Your task to perform on an android device: Go to network settings Image 0: 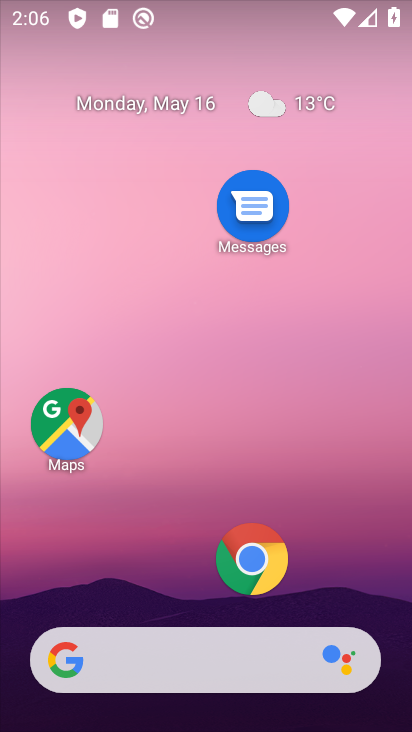
Step 0: drag from (177, 572) to (200, 188)
Your task to perform on an android device: Go to network settings Image 1: 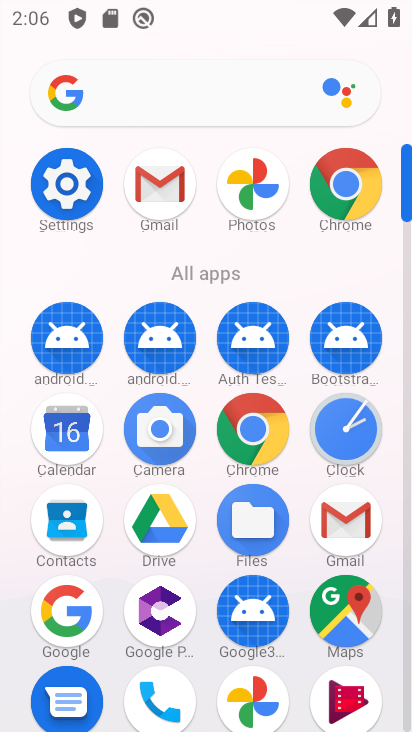
Step 1: click (68, 184)
Your task to perform on an android device: Go to network settings Image 2: 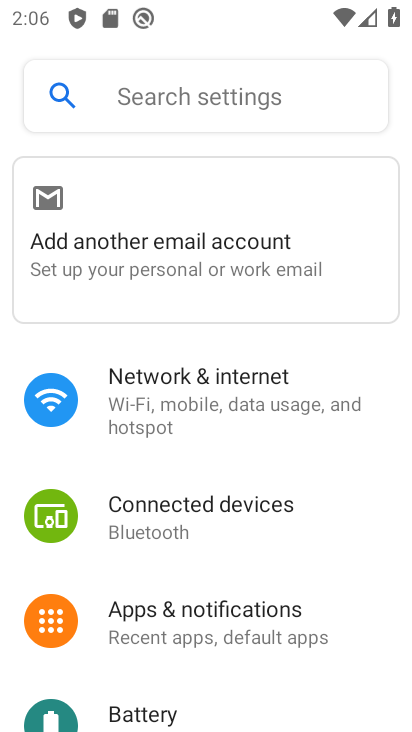
Step 2: click (221, 397)
Your task to perform on an android device: Go to network settings Image 3: 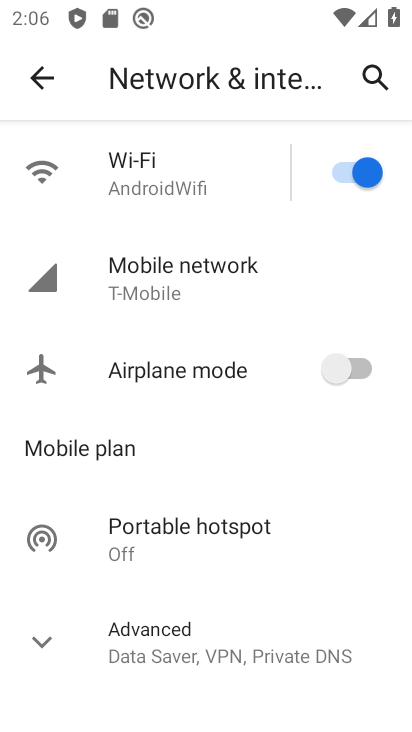
Step 3: click (222, 275)
Your task to perform on an android device: Go to network settings Image 4: 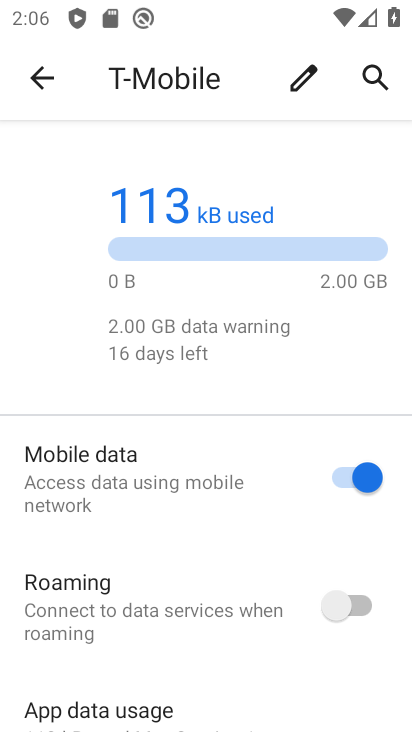
Step 4: task complete